Your task to perform on an android device: turn off notifications in google photos Image 0: 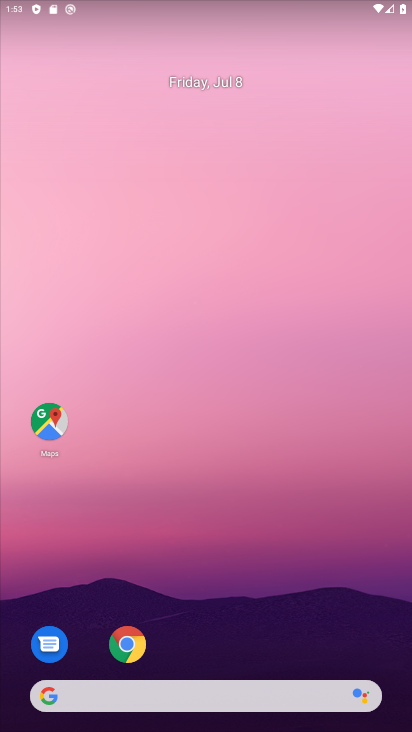
Step 0: click (161, 4)
Your task to perform on an android device: turn off notifications in google photos Image 1: 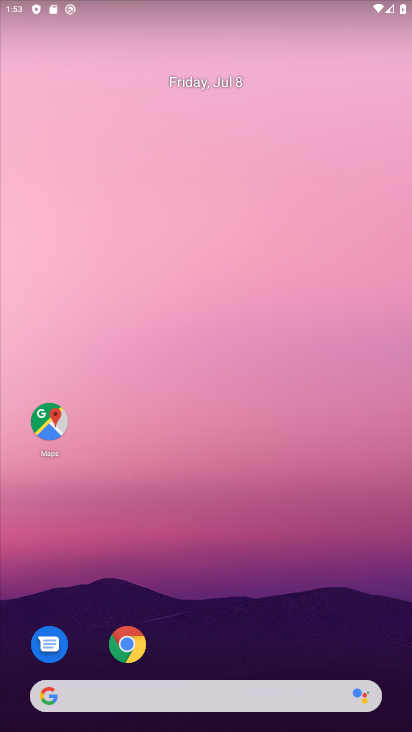
Step 1: drag from (245, 563) to (179, 132)
Your task to perform on an android device: turn off notifications in google photos Image 2: 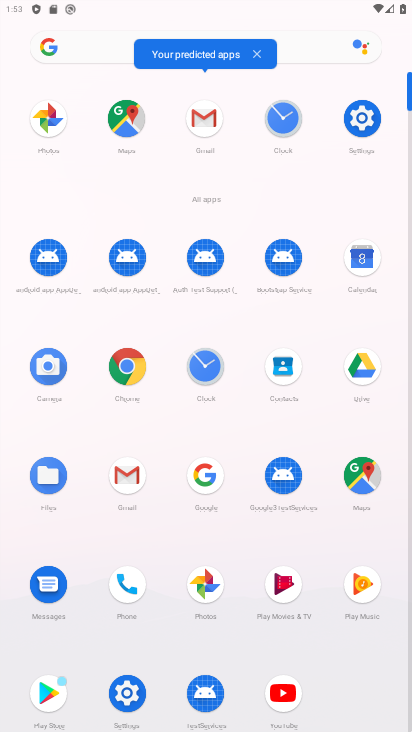
Step 2: click (206, 584)
Your task to perform on an android device: turn off notifications in google photos Image 3: 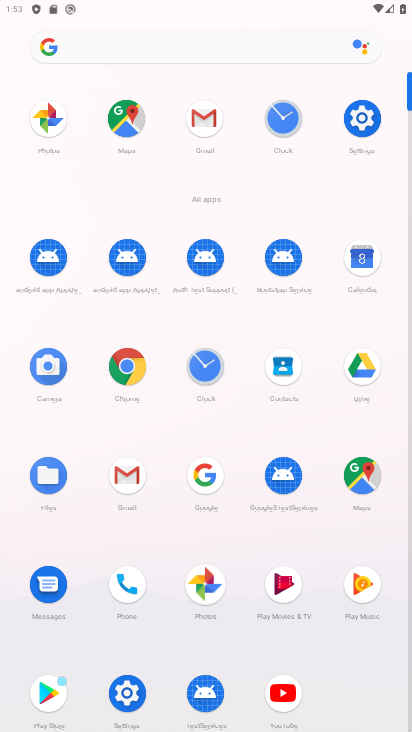
Step 3: click (206, 584)
Your task to perform on an android device: turn off notifications in google photos Image 4: 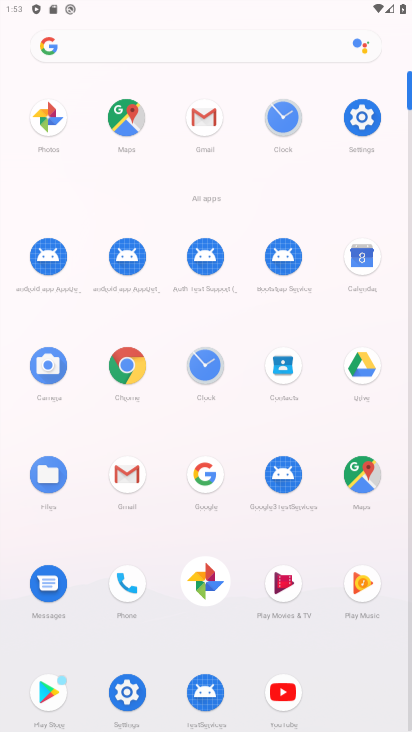
Step 4: click (206, 584)
Your task to perform on an android device: turn off notifications in google photos Image 5: 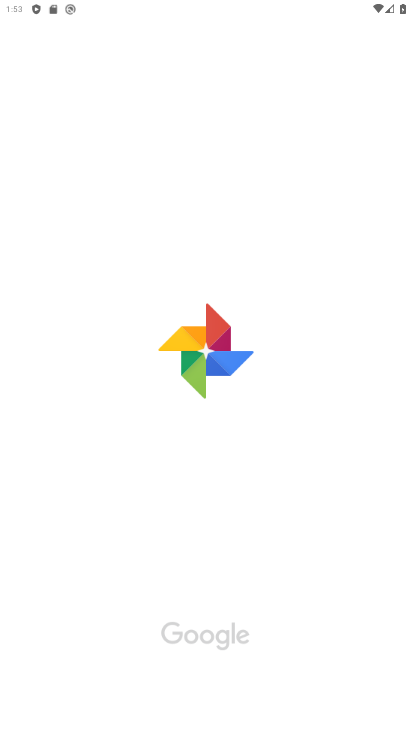
Step 5: click (207, 585)
Your task to perform on an android device: turn off notifications in google photos Image 6: 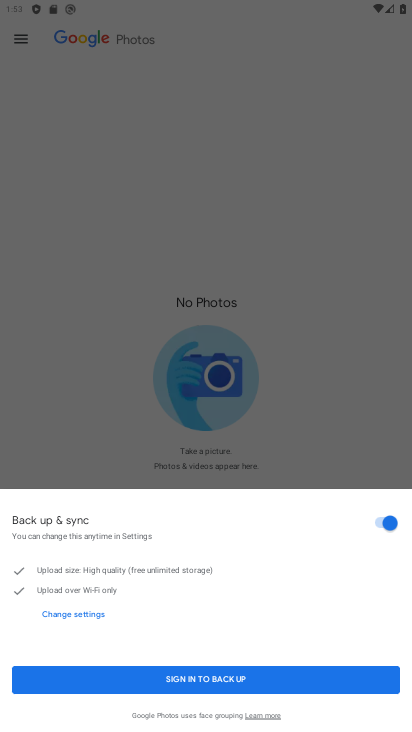
Step 6: task complete